Your task to perform on an android device: Check the weather Image 0: 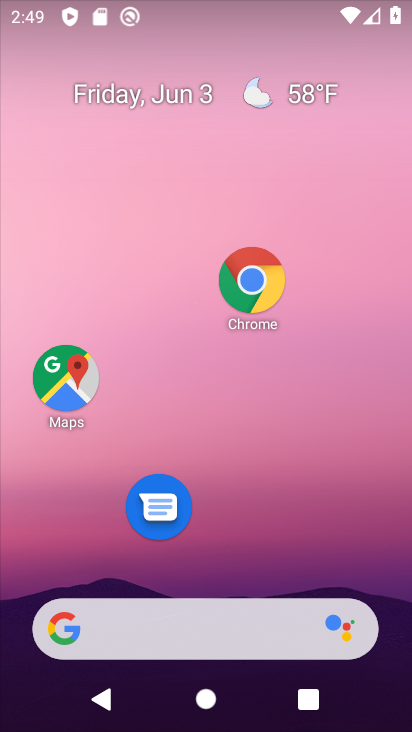
Step 0: drag from (222, 511) to (199, 53)
Your task to perform on an android device: Check the weather Image 1: 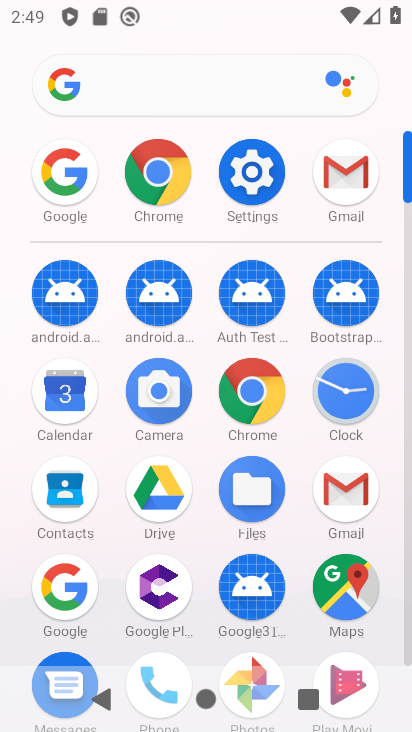
Step 1: click (66, 173)
Your task to perform on an android device: Check the weather Image 2: 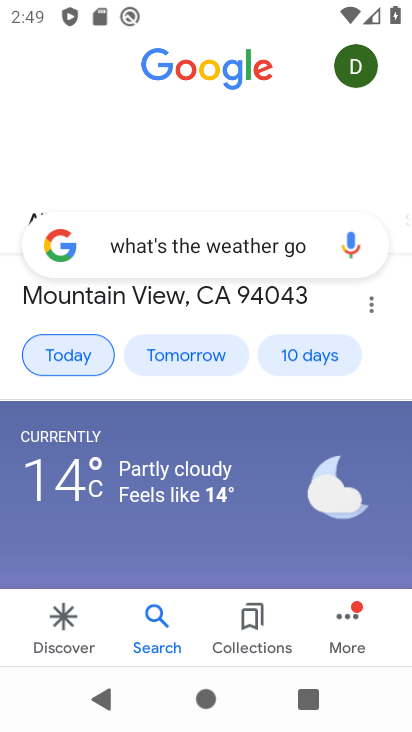
Step 2: click (310, 244)
Your task to perform on an android device: Check the weather Image 3: 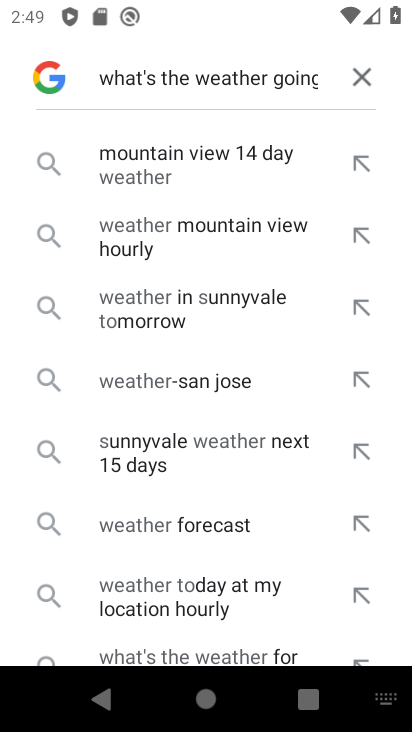
Step 3: click (357, 82)
Your task to perform on an android device: Check the weather Image 4: 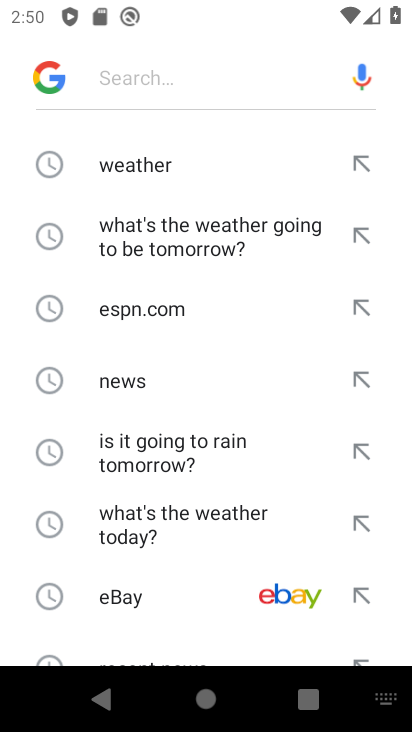
Step 4: click (152, 164)
Your task to perform on an android device: Check the weather Image 5: 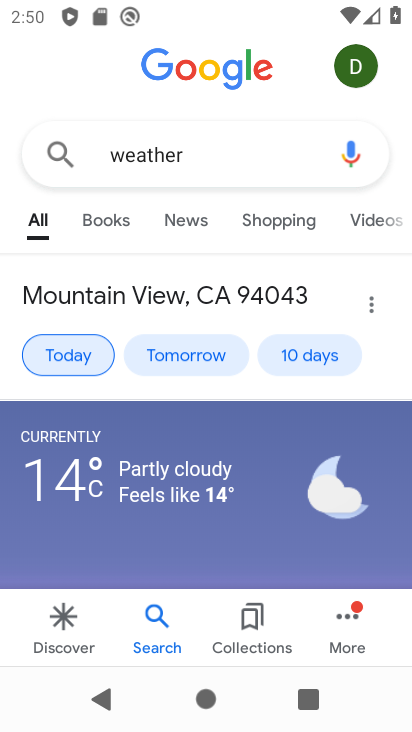
Step 5: task complete